Your task to perform on an android device: Open calendar and show me the second week of next month Image 0: 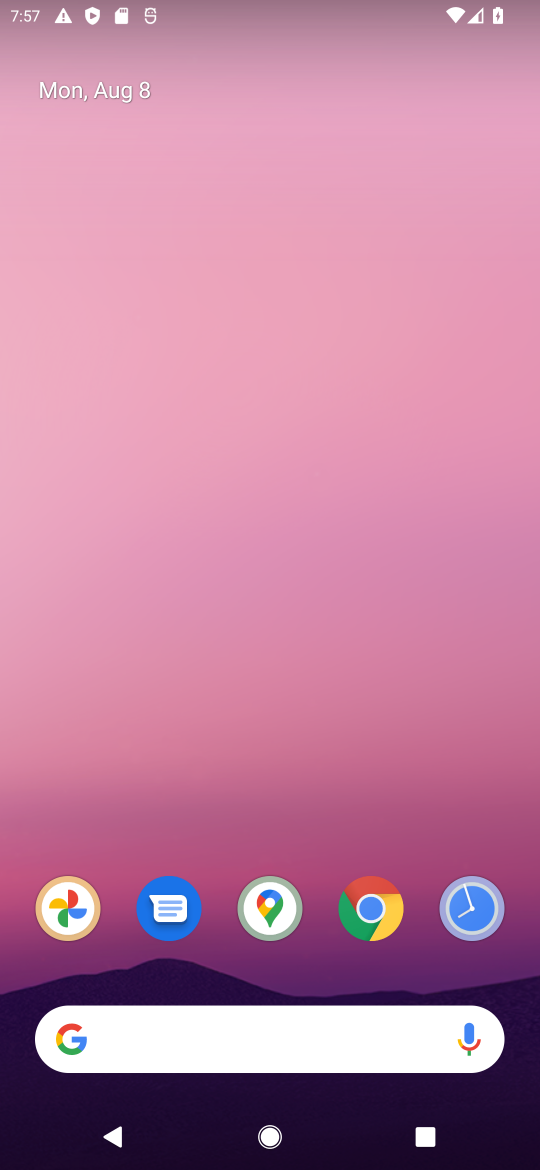
Step 0: click (118, 97)
Your task to perform on an android device: Open calendar and show me the second week of next month Image 1: 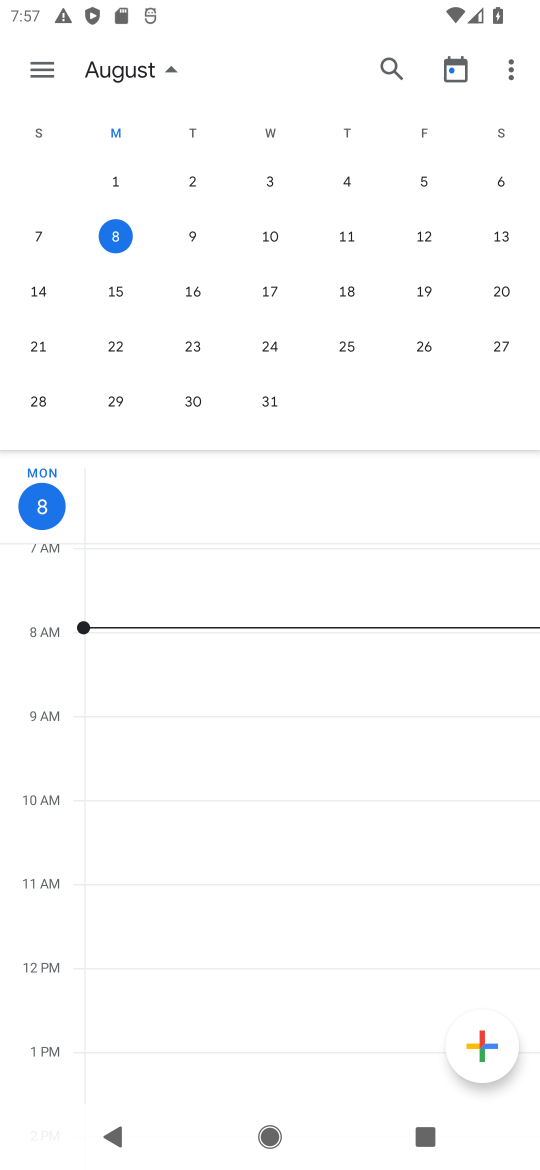
Step 1: drag from (490, 414) to (61, 377)
Your task to perform on an android device: Open calendar and show me the second week of next month Image 2: 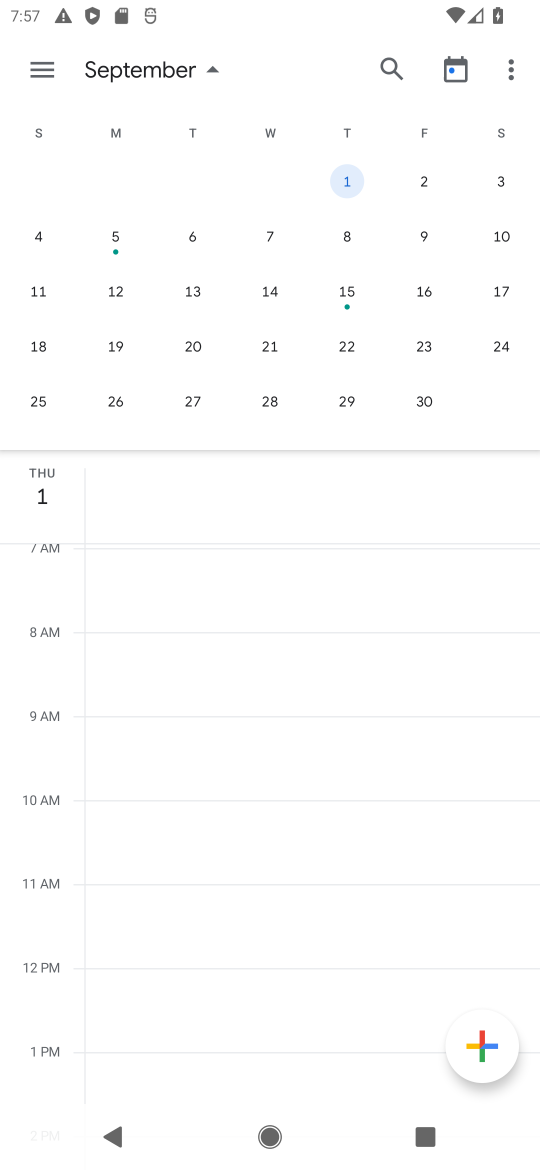
Step 2: click (346, 242)
Your task to perform on an android device: Open calendar and show me the second week of next month Image 3: 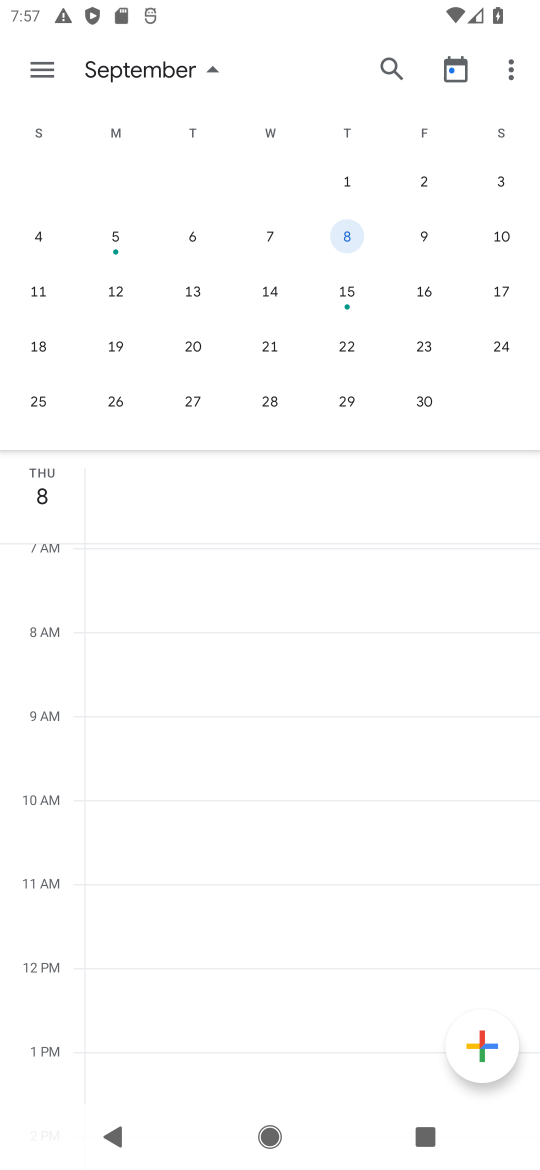
Step 3: task complete